Your task to perform on an android device: Find coffee shops on Maps Image 0: 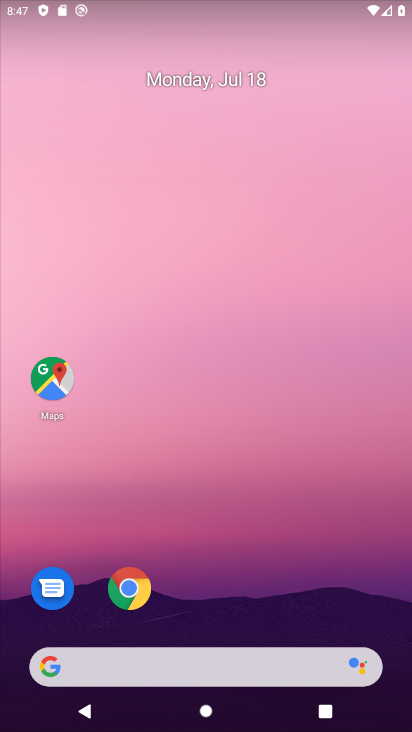
Step 0: click (57, 390)
Your task to perform on an android device: Find coffee shops on Maps Image 1: 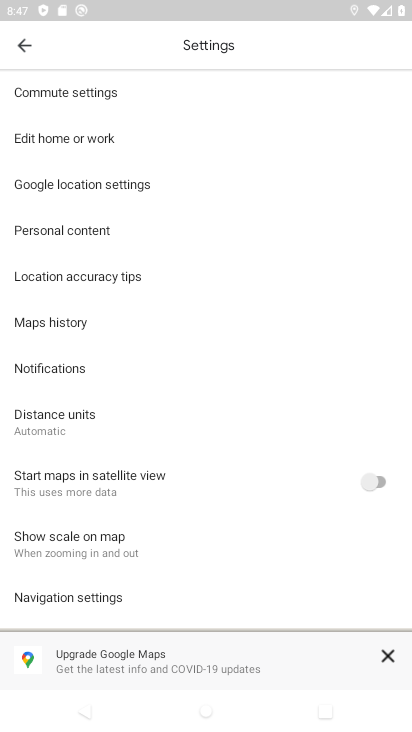
Step 1: click (29, 48)
Your task to perform on an android device: Find coffee shops on Maps Image 2: 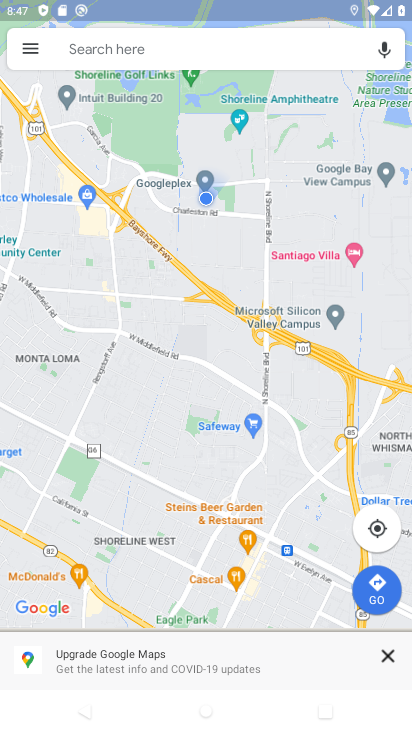
Step 2: click (99, 55)
Your task to perform on an android device: Find coffee shops on Maps Image 3: 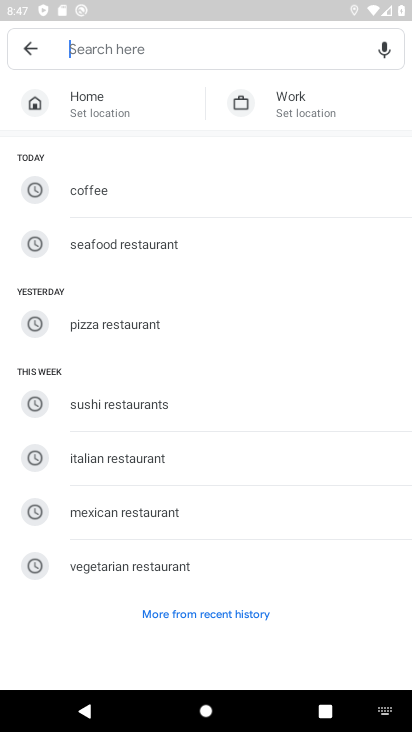
Step 3: type "coffee shops"
Your task to perform on an android device: Find coffee shops on Maps Image 4: 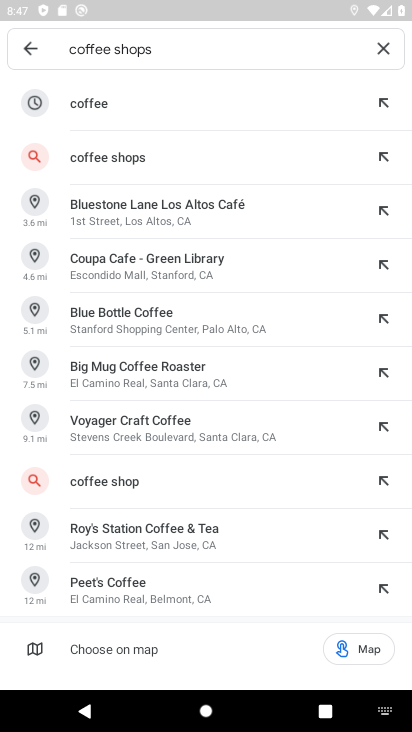
Step 4: click (168, 150)
Your task to perform on an android device: Find coffee shops on Maps Image 5: 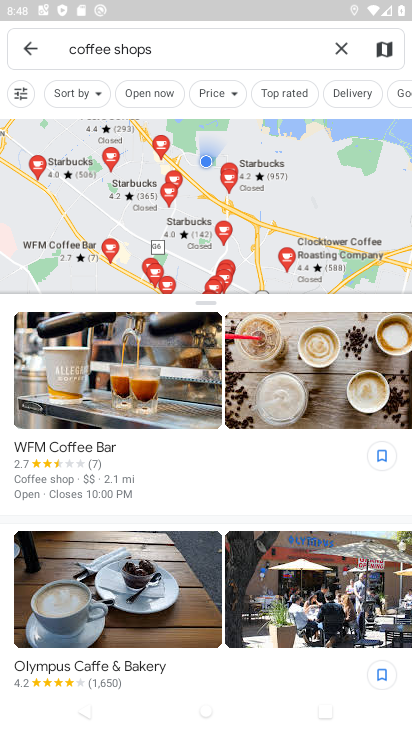
Step 5: task complete